Your task to perform on an android device: Search for Italian restaurants on Maps Image 0: 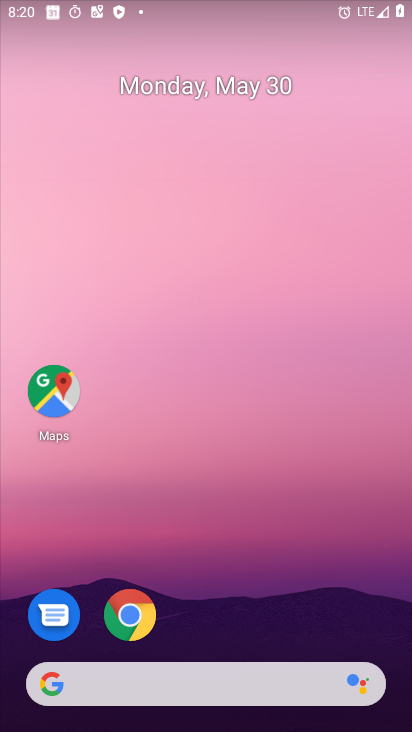
Step 0: drag from (237, 573) to (223, 167)
Your task to perform on an android device: Search for Italian restaurants on Maps Image 1: 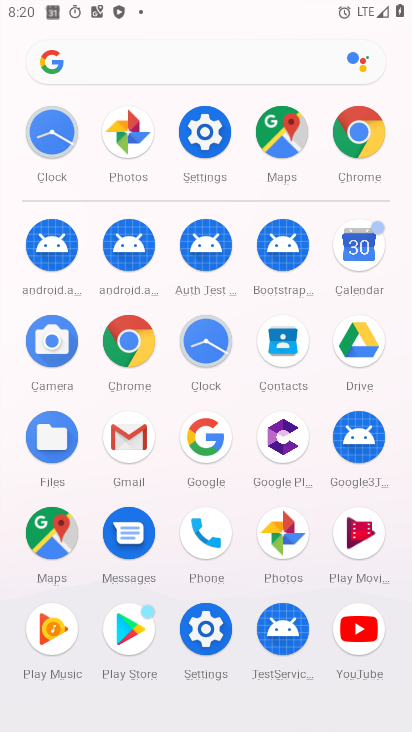
Step 1: click (282, 131)
Your task to perform on an android device: Search for Italian restaurants on Maps Image 2: 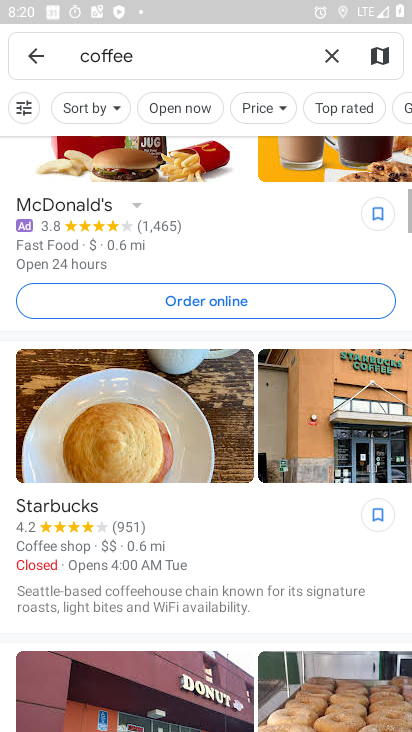
Step 2: click (324, 50)
Your task to perform on an android device: Search for Italian restaurants on Maps Image 3: 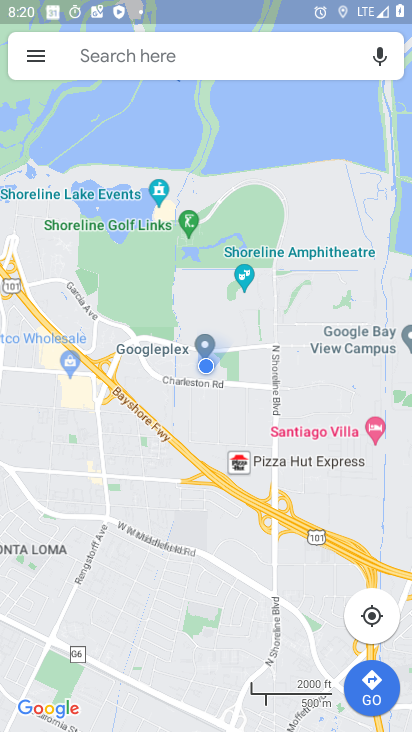
Step 3: click (292, 69)
Your task to perform on an android device: Search for Italian restaurants on Maps Image 4: 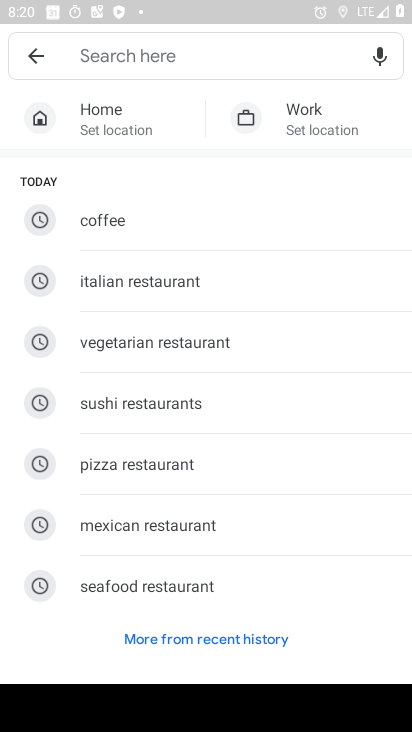
Step 4: click (169, 270)
Your task to perform on an android device: Search for Italian restaurants on Maps Image 5: 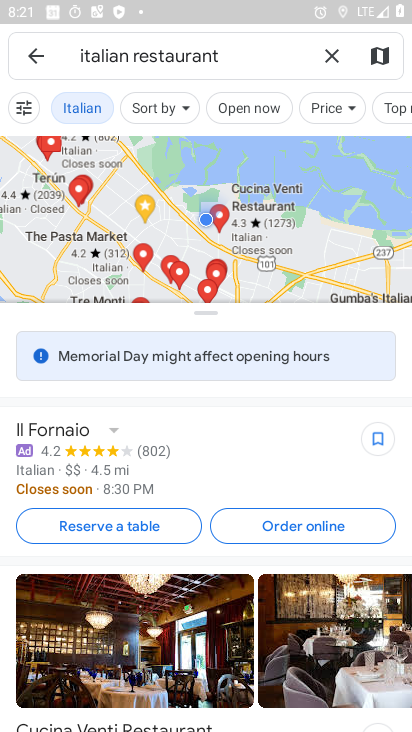
Step 5: task complete